Your task to perform on an android device: change the upload size in google photos Image 0: 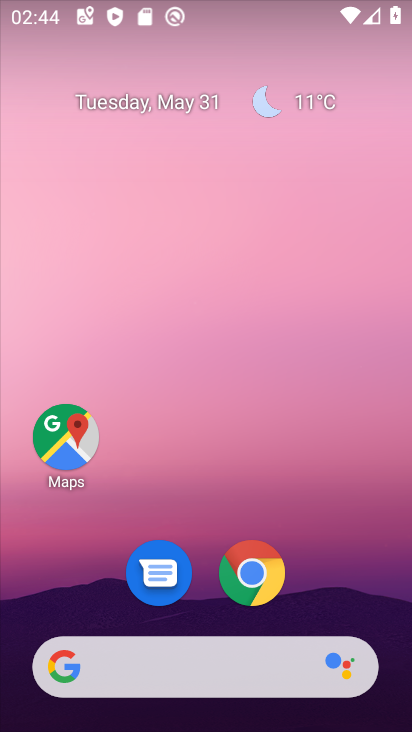
Step 0: drag from (334, 602) to (295, 116)
Your task to perform on an android device: change the upload size in google photos Image 1: 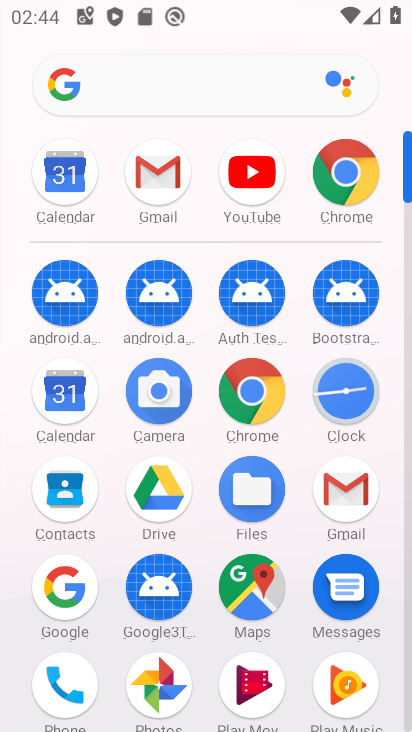
Step 1: click (155, 671)
Your task to perform on an android device: change the upload size in google photos Image 2: 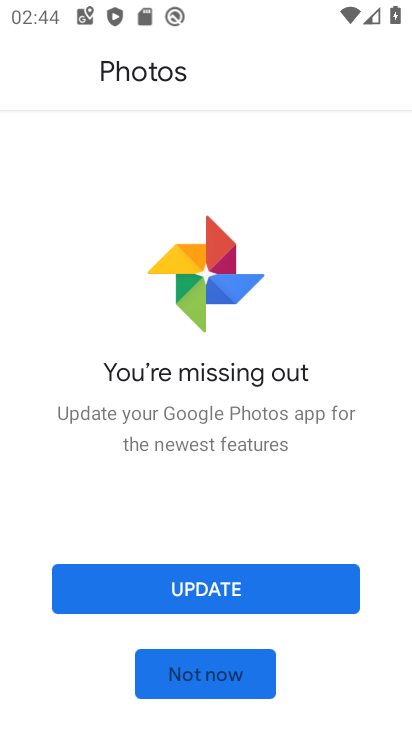
Step 2: click (248, 590)
Your task to perform on an android device: change the upload size in google photos Image 3: 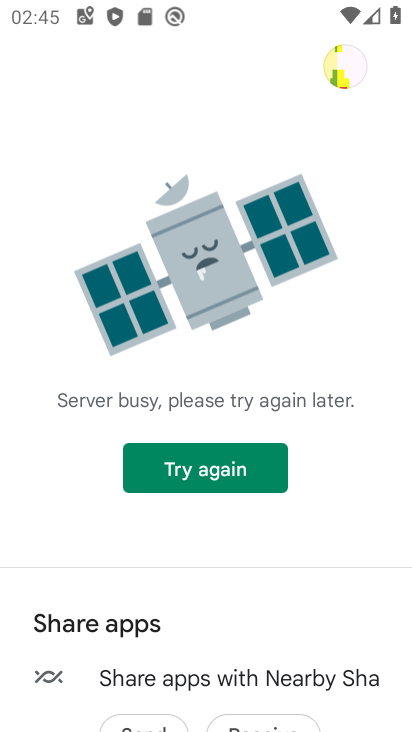
Step 3: press home button
Your task to perform on an android device: change the upload size in google photos Image 4: 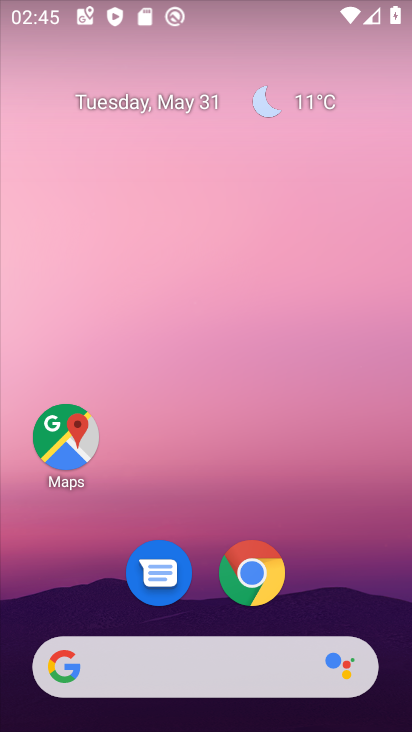
Step 4: drag from (342, 600) to (304, 40)
Your task to perform on an android device: change the upload size in google photos Image 5: 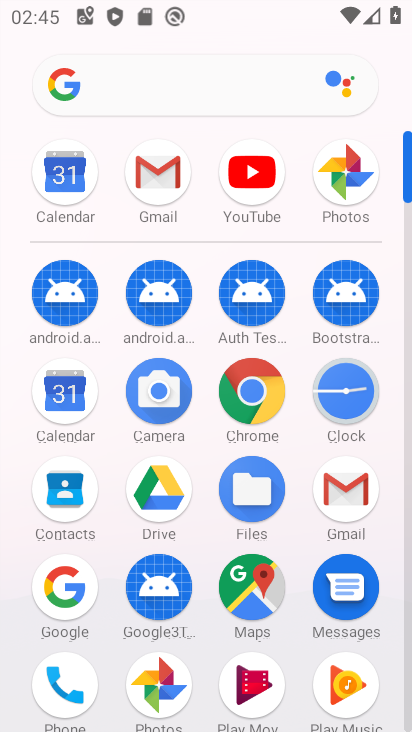
Step 5: click (352, 181)
Your task to perform on an android device: change the upload size in google photos Image 6: 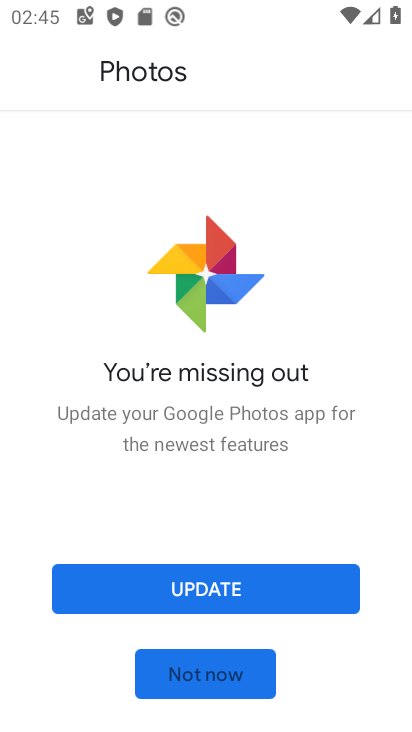
Step 6: click (206, 598)
Your task to perform on an android device: change the upload size in google photos Image 7: 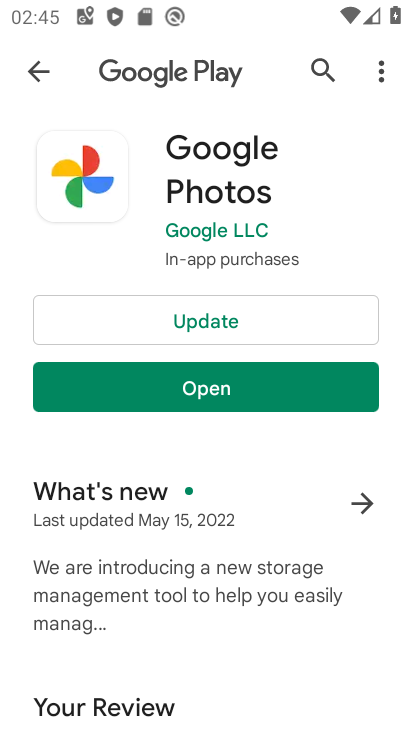
Step 7: click (235, 321)
Your task to perform on an android device: change the upload size in google photos Image 8: 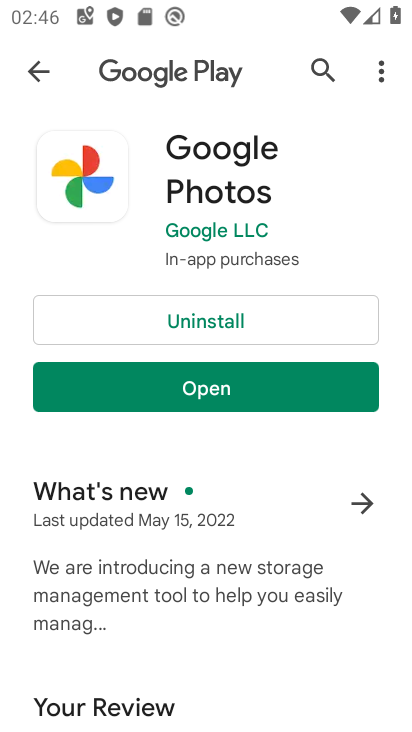
Step 8: click (338, 395)
Your task to perform on an android device: change the upload size in google photos Image 9: 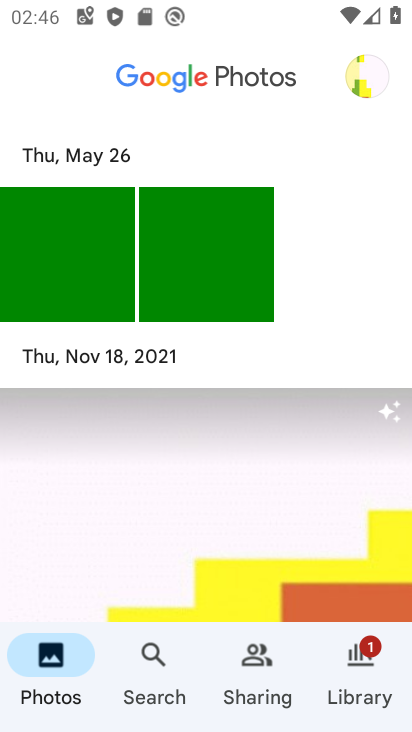
Step 9: click (376, 69)
Your task to perform on an android device: change the upload size in google photos Image 10: 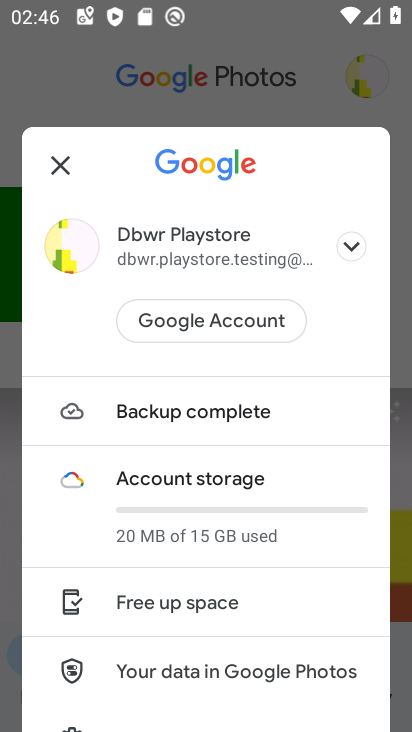
Step 10: drag from (261, 679) to (254, 354)
Your task to perform on an android device: change the upload size in google photos Image 11: 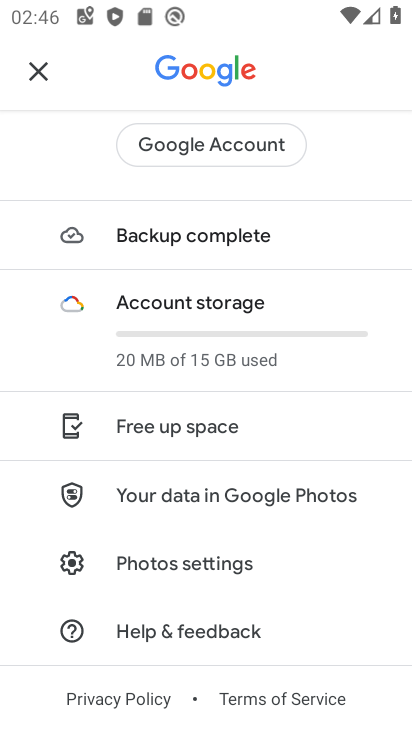
Step 11: click (237, 559)
Your task to perform on an android device: change the upload size in google photos Image 12: 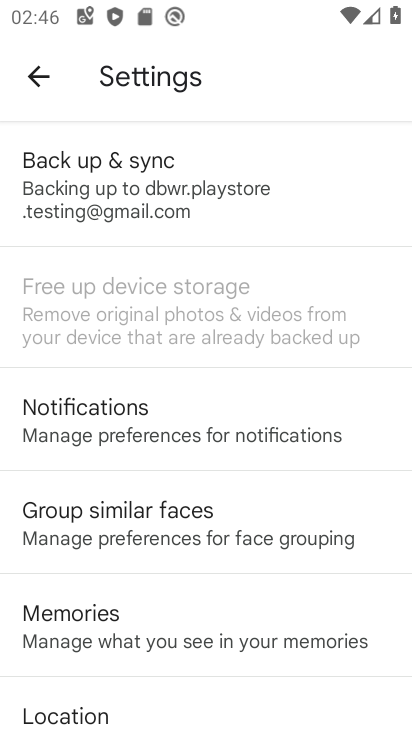
Step 12: click (200, 211)
Your task to perform on an android device: change the upload size in google photos Image 13: 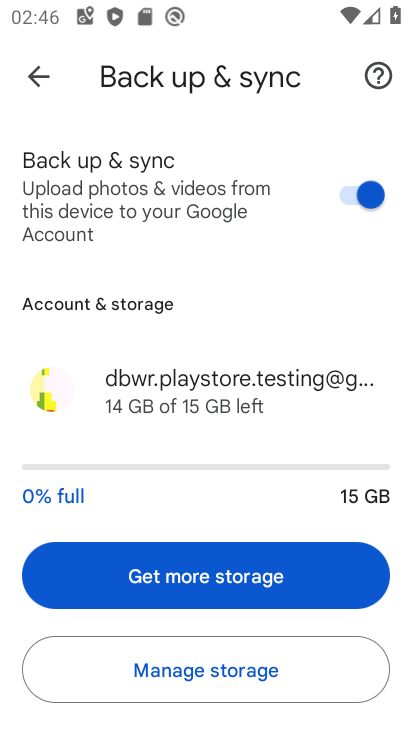
Step 13: drag from (249, 460) to (213, 64)
Your task to perform on an android device: change the upload size in google photos Image 14: 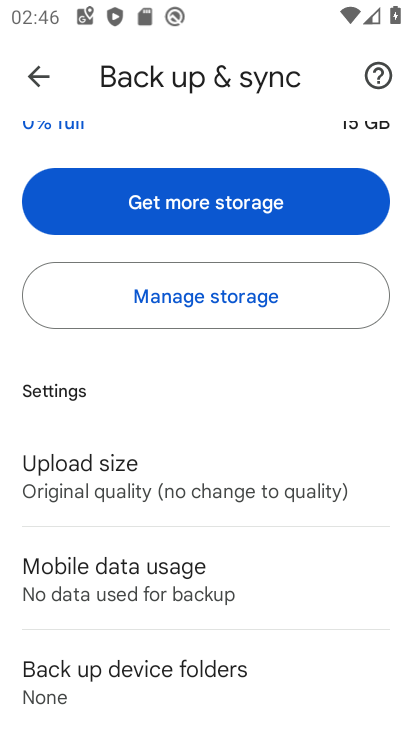
Step 14: click (237, 462)
Your task to perform on an android device: change the upload size in google photos Image 15: 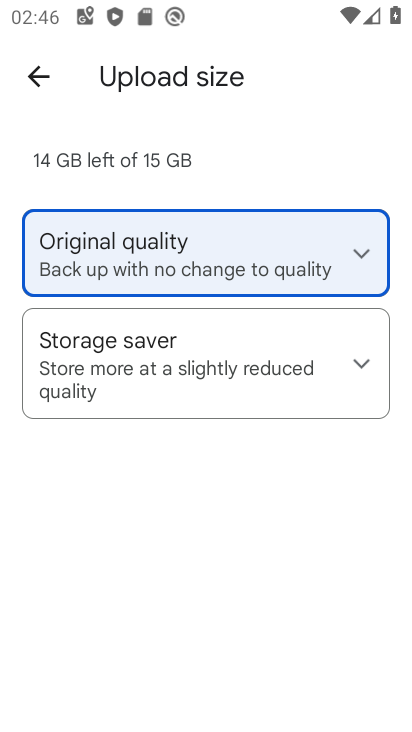
Step 15: click (208, 346)
Your task to perform on an android device: change the upload size in google photos Image 16: 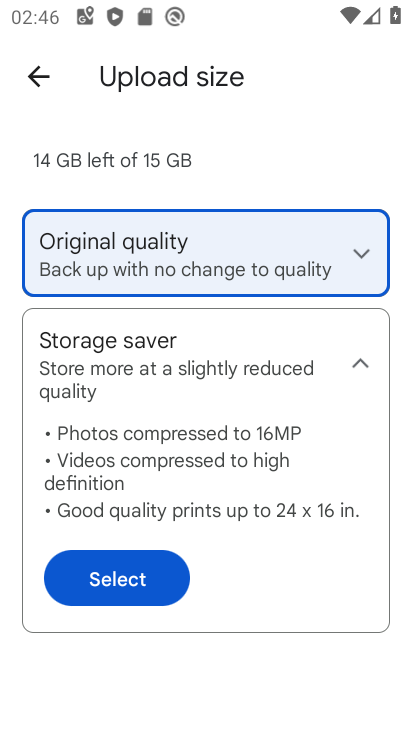
Step 16: click (132, 587)
Your task to perform on an android device: change the upload size in google photos Image 17: 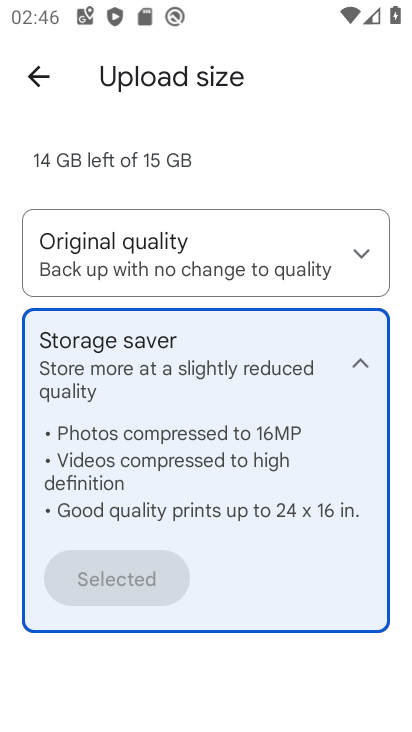
Step 17: task complete